Your task to perform on an android device: Search for seafood restaurants on Google Maps Image 0: 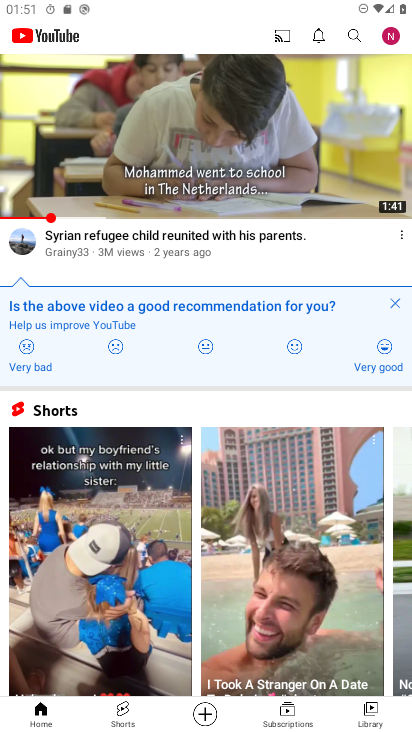
Step 0: press home button
Your task to perform on an android device: Search for seafood restaurants on Google Maps Image 1: 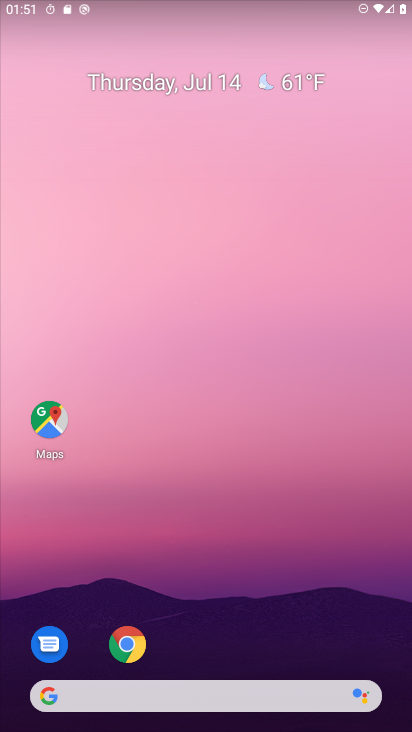
Step 1: drag from (320, 603) to (287, 20)
Your task to perform on an android device: Search for seafood restaurants on Google Maps Image 2: 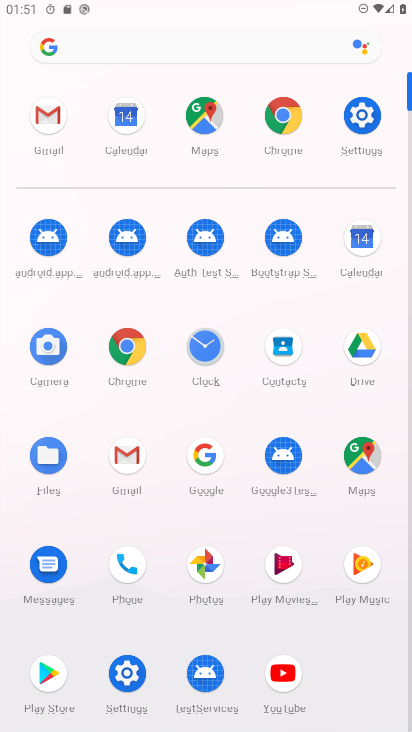
Step 2: click (366, 457)
Your task to perform on an android device: Search for seafood restaurants on Google Maps Image 3: 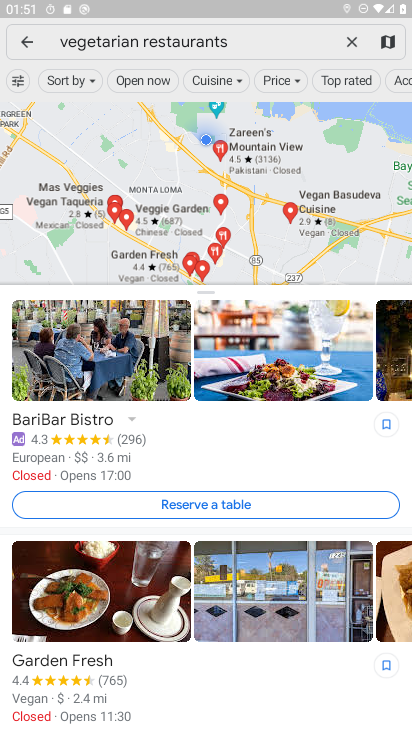
Step 3: click (351, 41)
Your task to perform on an android device: Search for seafood restaurants on Google Maps Image 4: 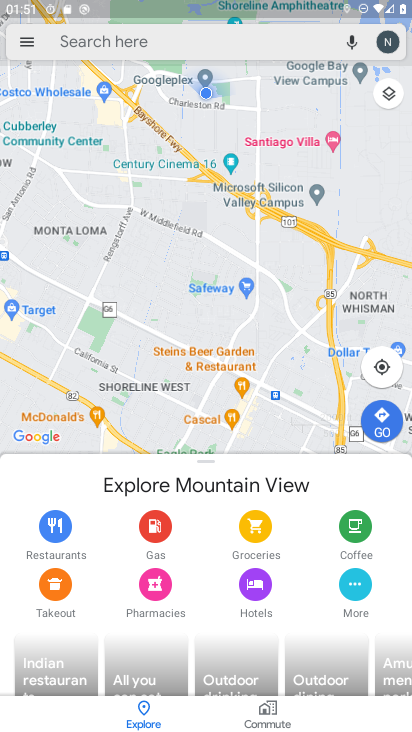
Step 4: click (294, 45)
Your task to perform on an android device: Search for seafood restaurants on Google Maps Image 5: 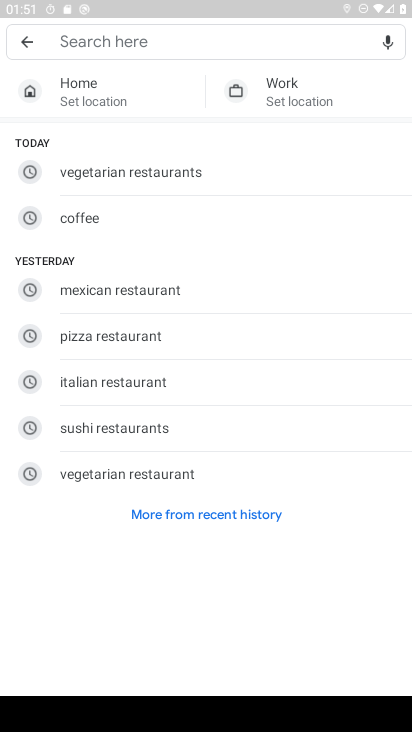
Step 5: type "seafood restaurants"
Your task to perform on an android device: Search for seafood restaurants on Google Maps Image 6: 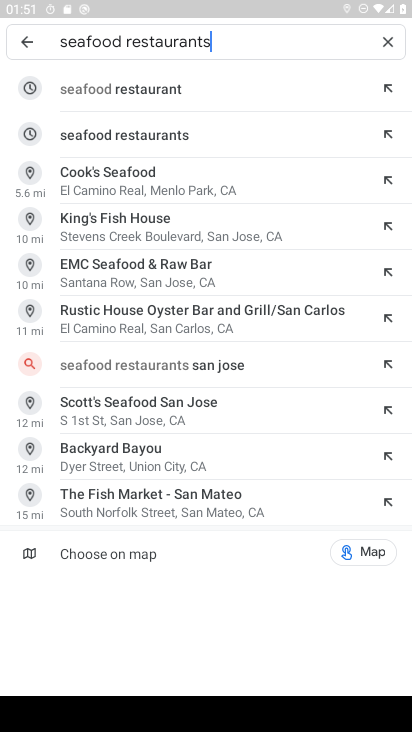
Step 6: press enter
Your task to perform on an android device: Search for seafood restaurants on Google Maps Image 7: 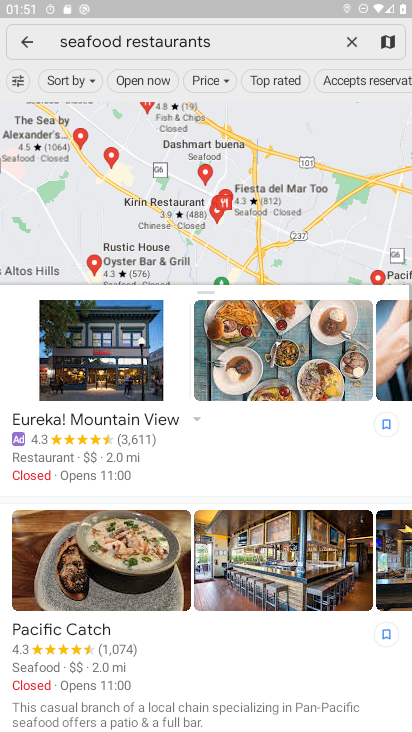
Step 7: task complete